Your task to perform on an android device: What's the weather today? Image 0: 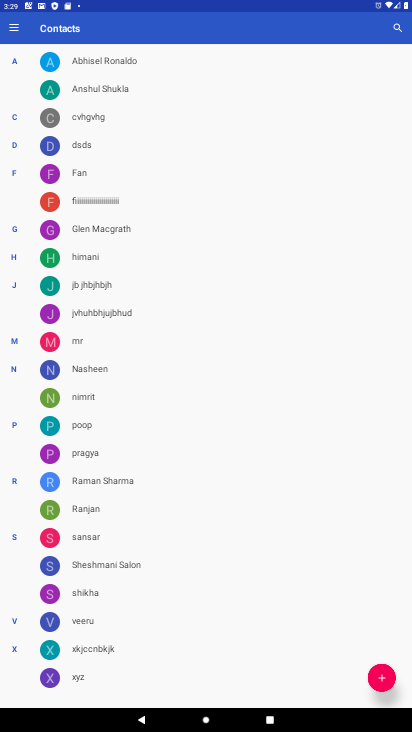
Step 0: press home button
Your task to perform on an android device: What's the weather today? Image 1: 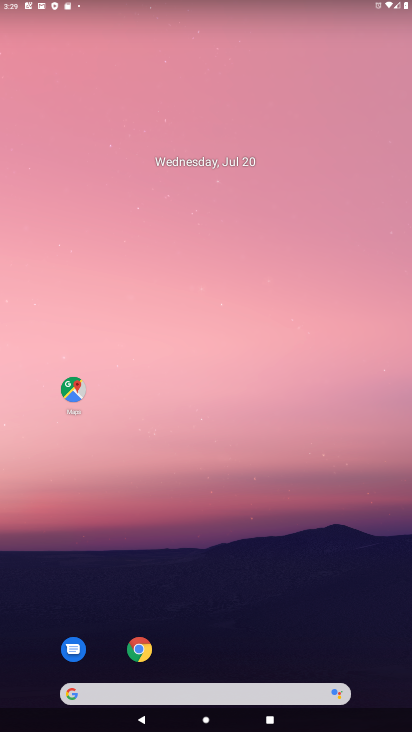
Step 1: drag from (185, 693) to (209, 238)
Your task to perform on an android device: What's the weather today? Image 2: 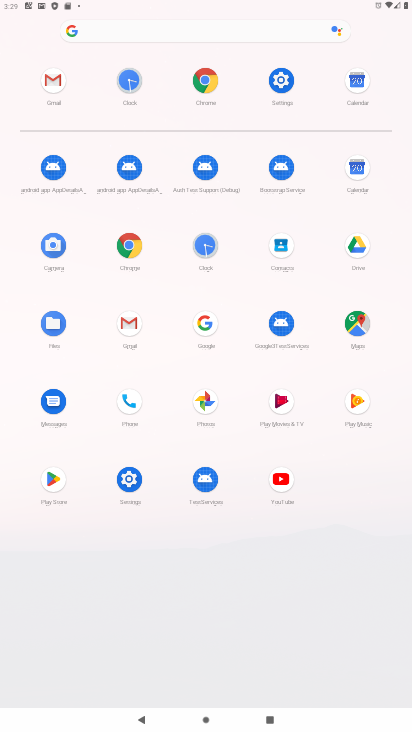
Step 2: click (204, 322)
Your task to perform on an android device: What's the weather today? Image 3: 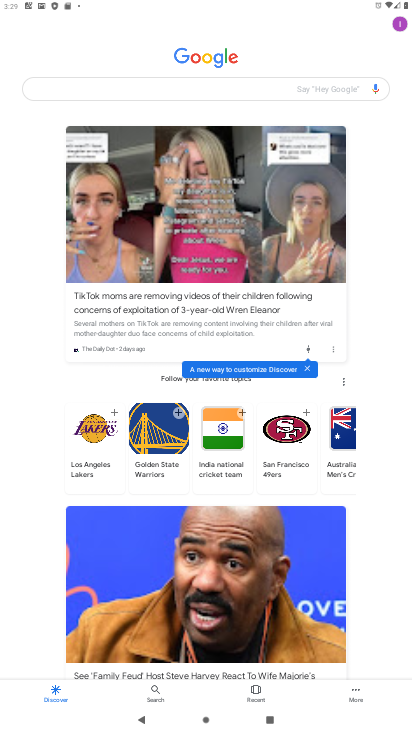
Step 3: click (264, 86)
Your task to perform on an android device: What's the weather today? Image 4: 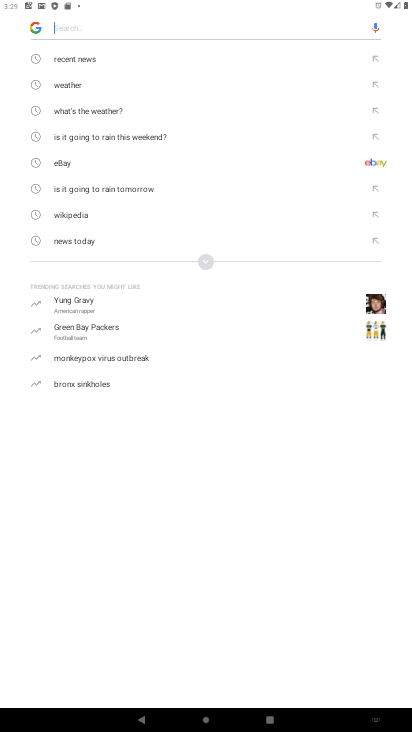
Step 4: click (68, 87)
Your task to perform on an android device: What's the weather today? Image 5: 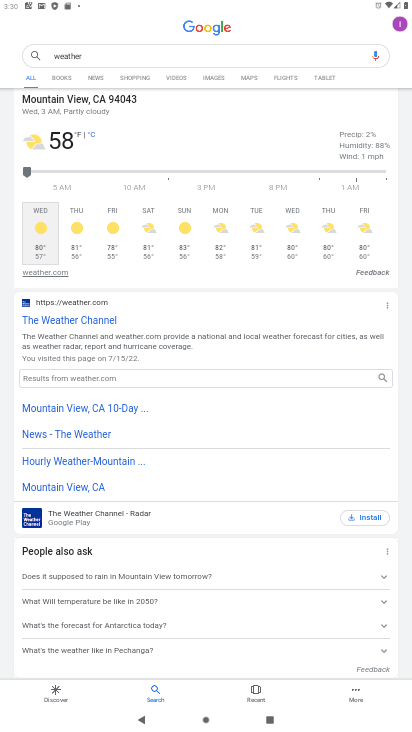
Step 5: task complete